Your task to perform on an android device: Open the web browser Image 0: 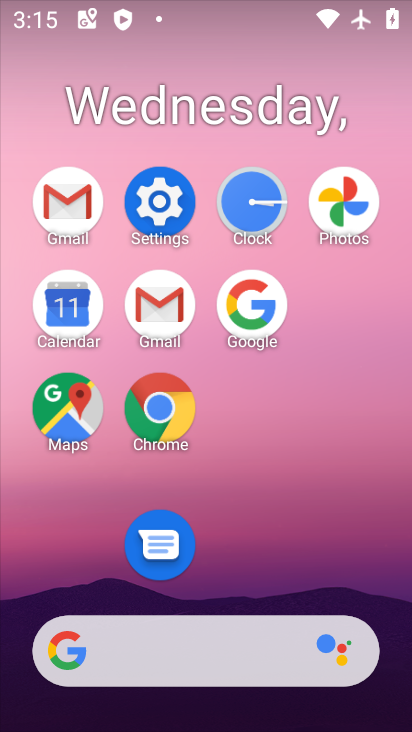
Step 0: click (165, 408)
Your task to perform on an android device: Open the web browser Image 1: 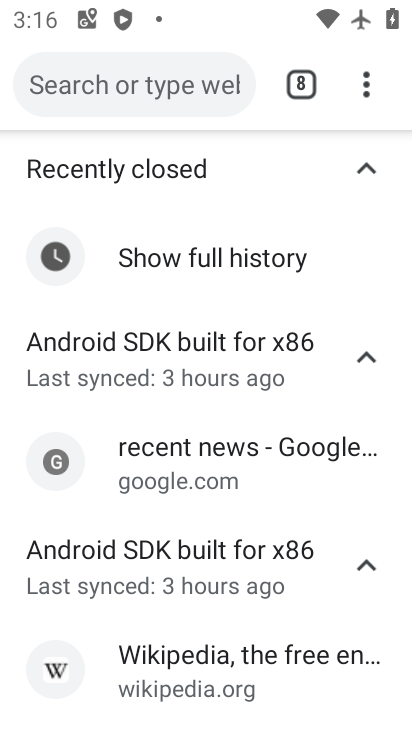
Step 1: task complete